Your task to perform on an android device: toggle location history Image 0: 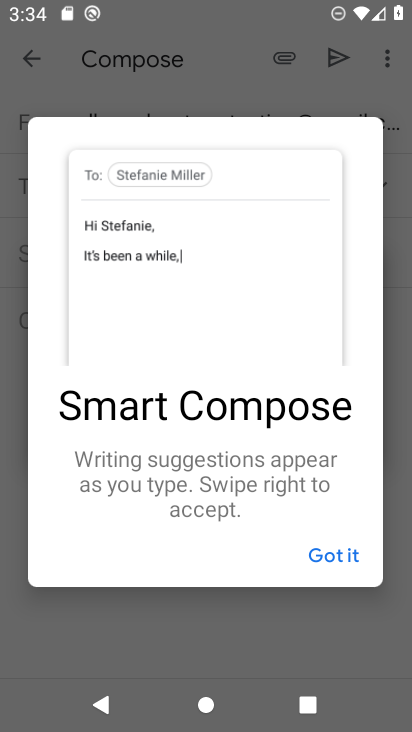
Step 0: press home button
Your task to perform on an android device: toggle location history Image 1: 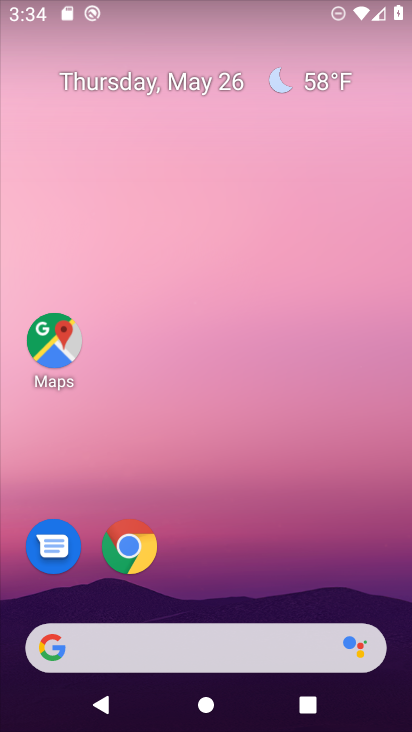
Step 1: drag from (216, 586) to (311, 0)
Your task to perform on an android device: toggle location history Image 2: 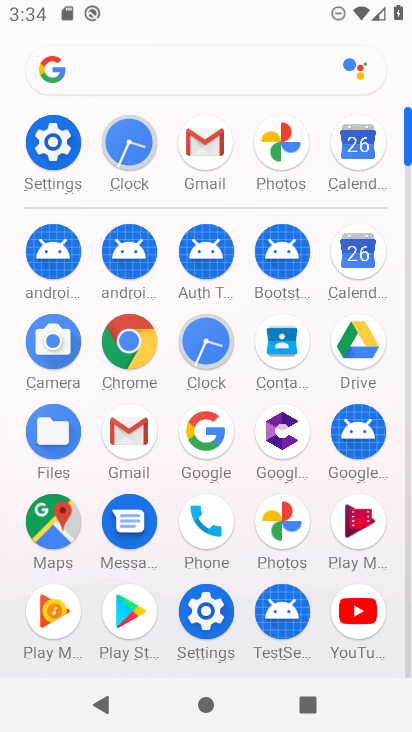
Step 2: click (203, 605)
Your task to perform on an android device: toggle location history Image 3: 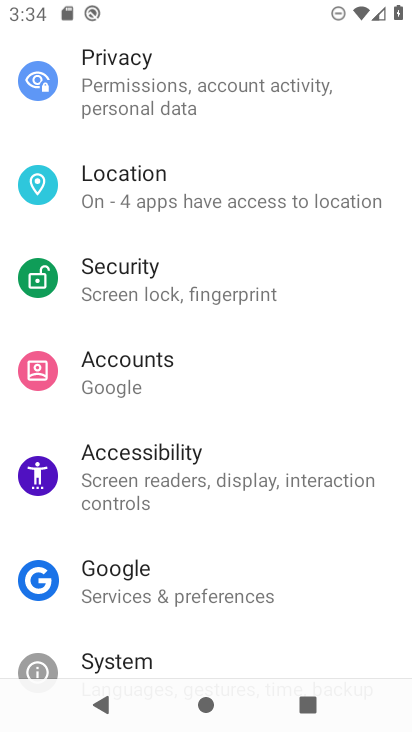
Step 3: click (175, 194)
Your task to perform on an android device: toggle location history Image 4: 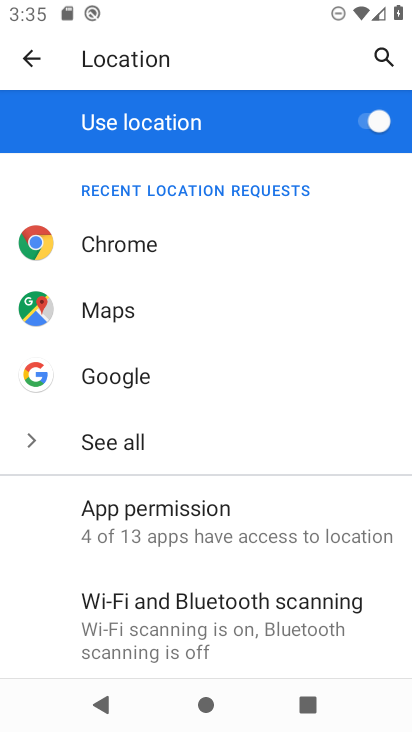
Step 4: drag from (183, 619) to (238, 225)
Your task to perform on an android device: toggle location history Image 5: 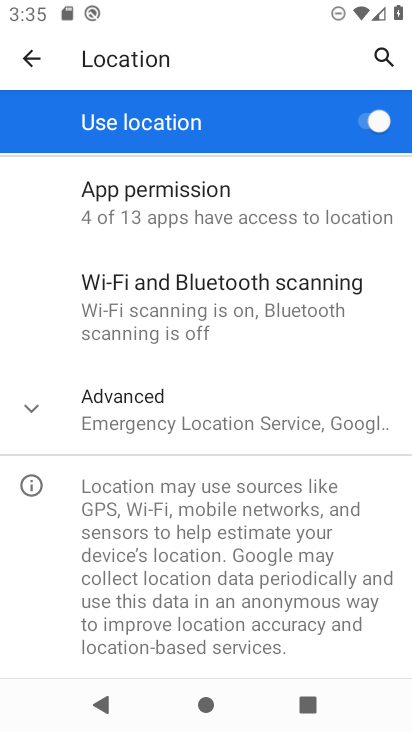
Step 5: click (114, 394)
Your task to perform on an android device: toggle location history Image 6: 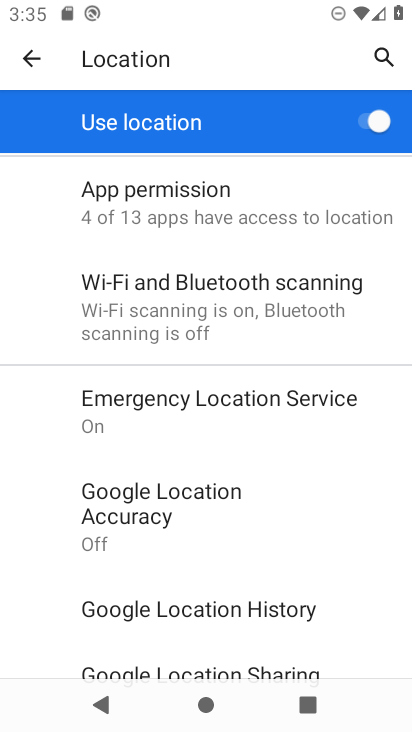
Step 6: click (227, 602)
Your task to perform on an android device: toggle location history Image 7: 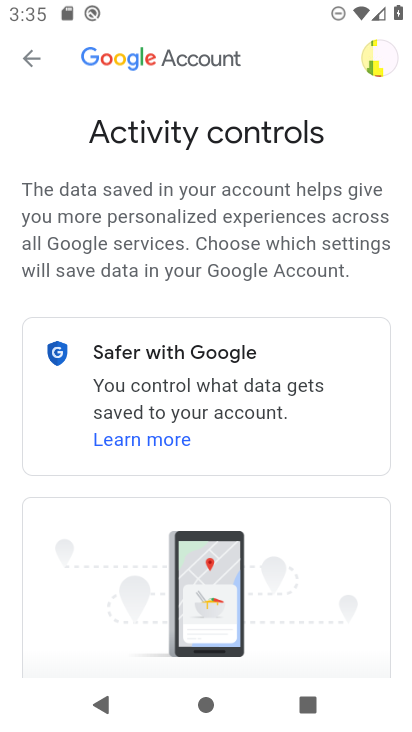
Step 7: task complete